Your task to perform on an android device: Open eBay Image 0: 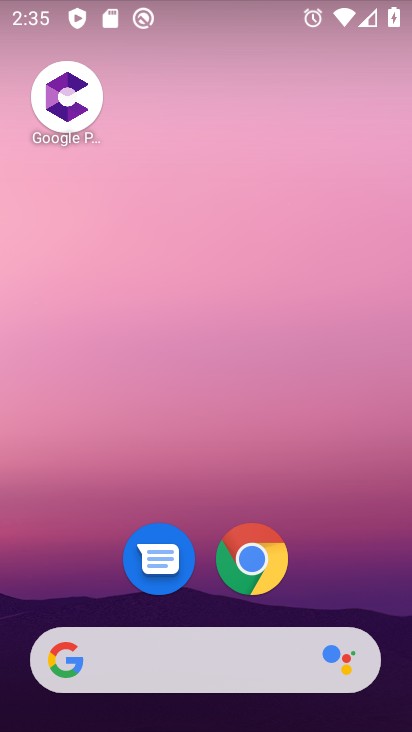
Step 0: click (246, 543)
Your task to perform on an android device: Open eBay Image 1: 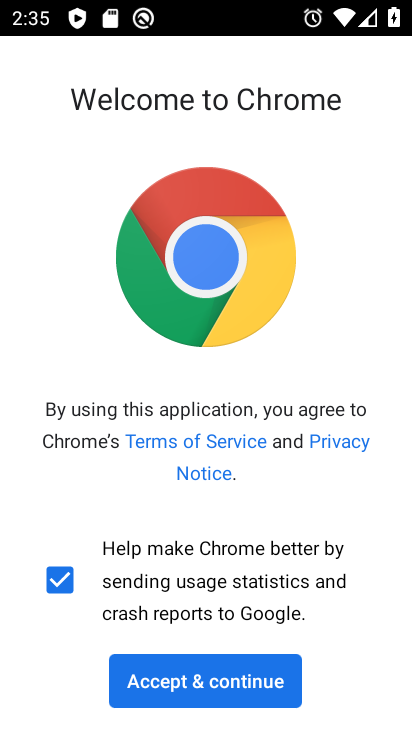
Step 1: click (181, 680)
Your task to perform on an android device: Open eBay Image 2: 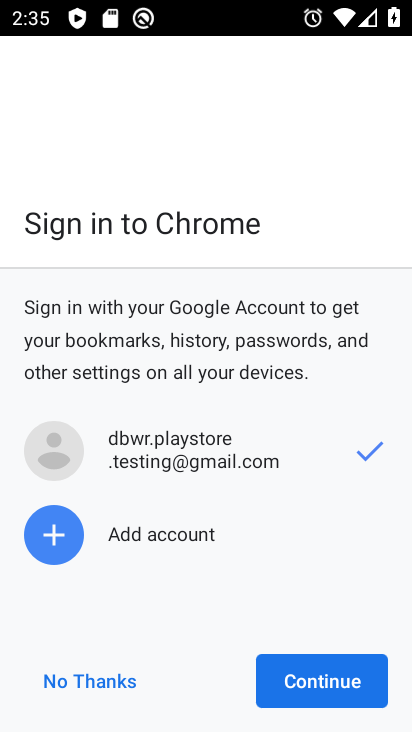
Step 2: click (296, 692)
Your task to perform on an android device: Open eBay Image 3: 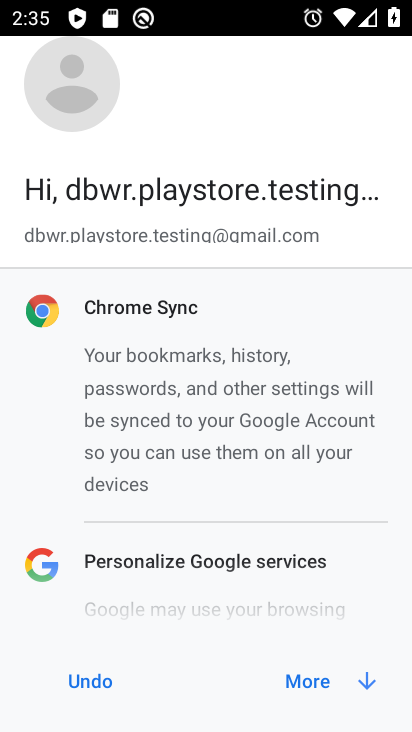
Step 3: click (377, 683)
Your task to perform on an android device: Open eBay Image 4: 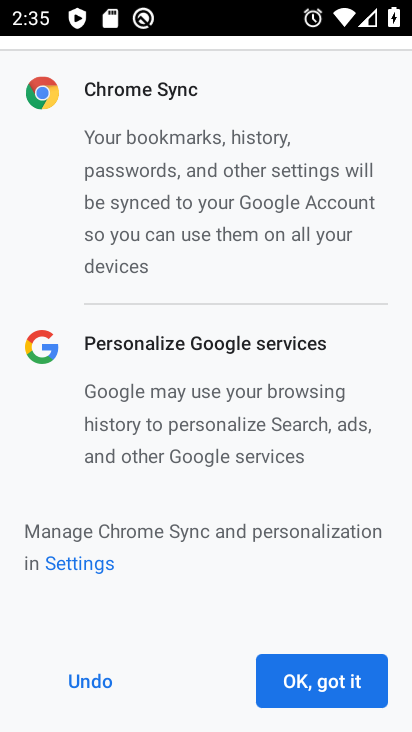
Step 4: click (356, 691)
Your task to perform on an android device: Open eBay Image 5: 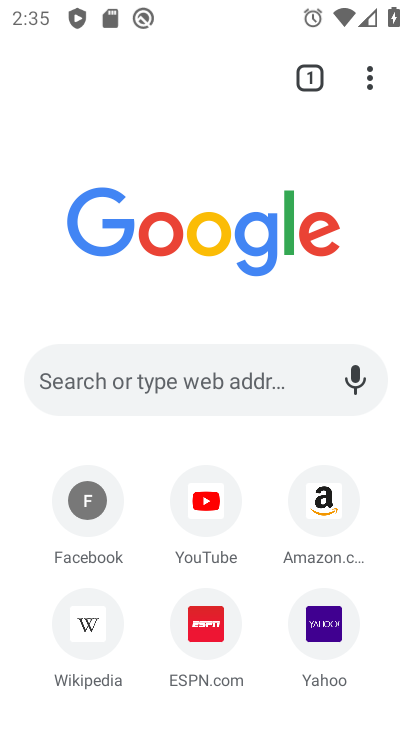
Step 5: click (197, 381)
Your task to perform on an android device: Open eBay Image 6: 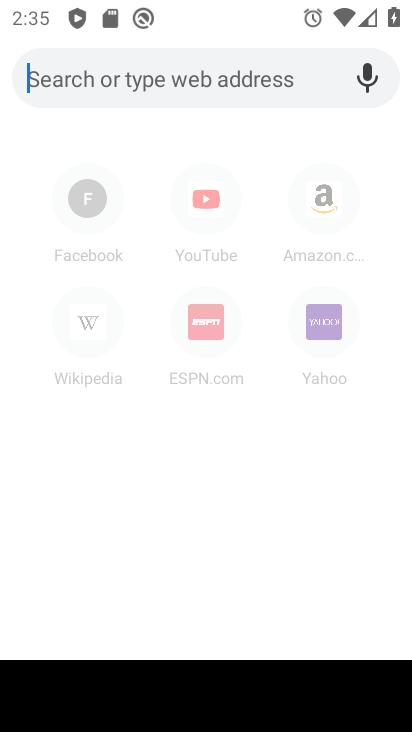
Step 6: type "ebay"
Your task to perform on an android device: Open eBay Image 7: 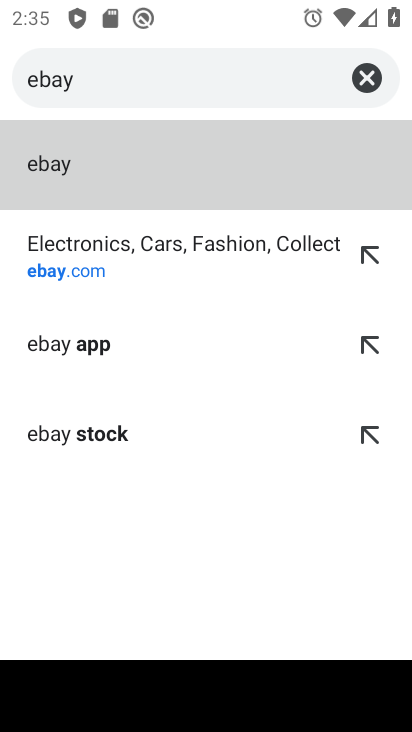
Step 7: click (76, 165)
Your task to perform on an android device: Open eBay Image 8: 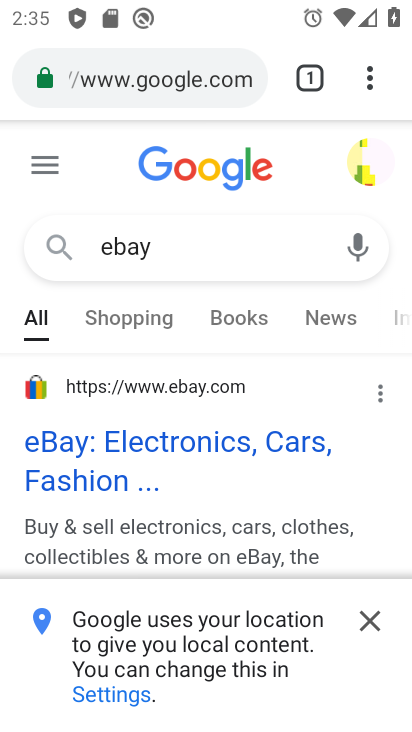
Step 8: click (84, 461)
Your task to perform on an android device: Open eBay Image 9: 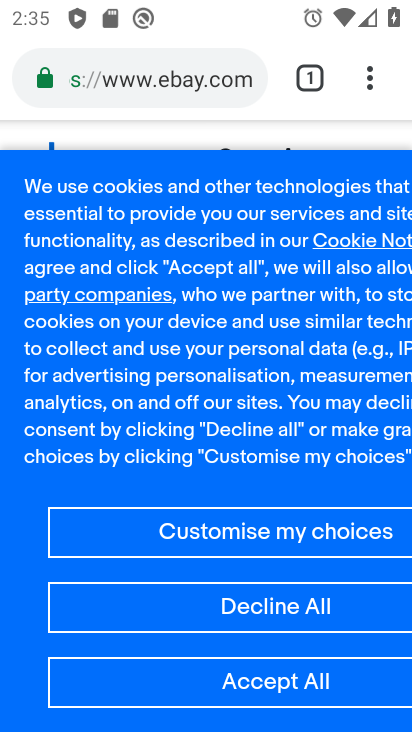
Step 9: task complete